Your task to perform on an android device: What's on my calendar today? Image 0: 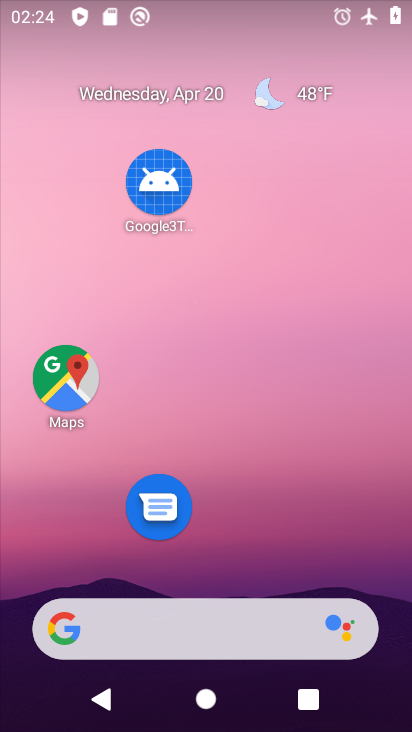
Step 0: drag from (223, 472) to (178, 11)
Your task to perform on an android device: What's on my calendar today? Image 1: 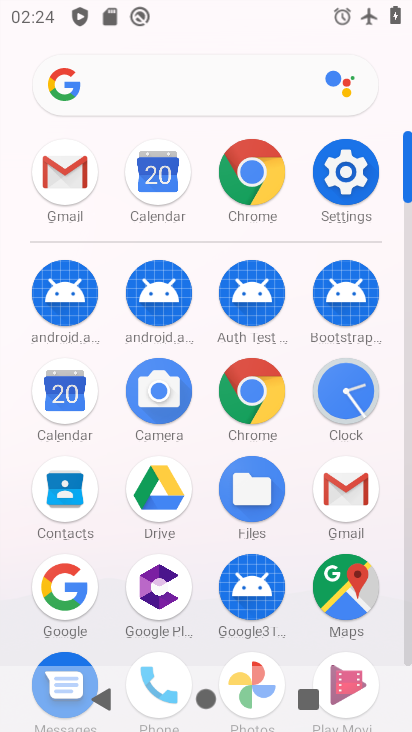
Step 1: click (58, 406)
Your task to perform on an android device: What's on my calendar today? Image 2: 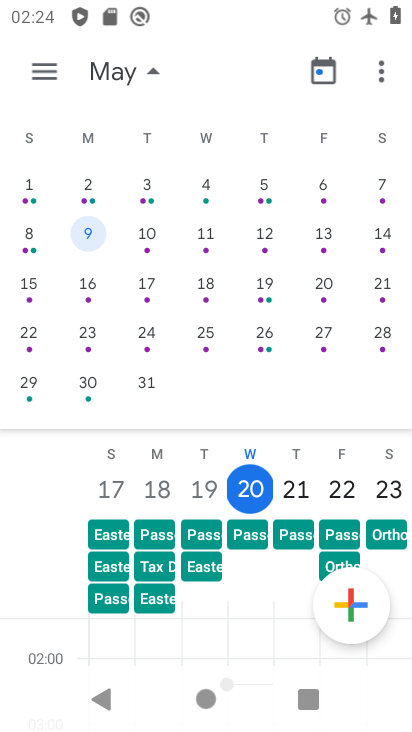
Step 2: click (37, 69)
Your task to perform on an android device: What's on my calendar today? Image 3: 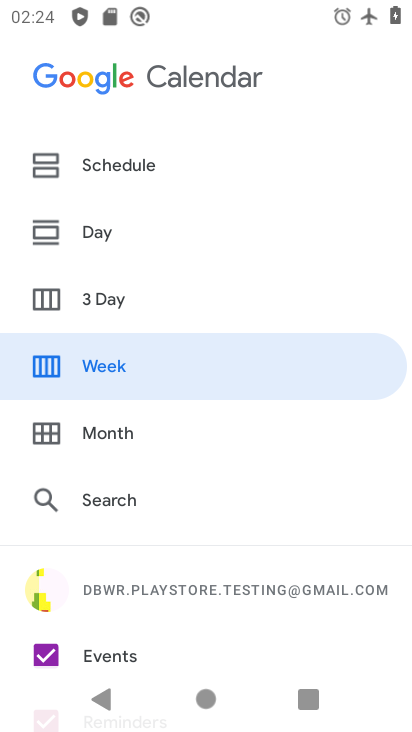
Step 3: click (89, 231)
Your task to perform on an android device: What's on my calendar today? Image 4: 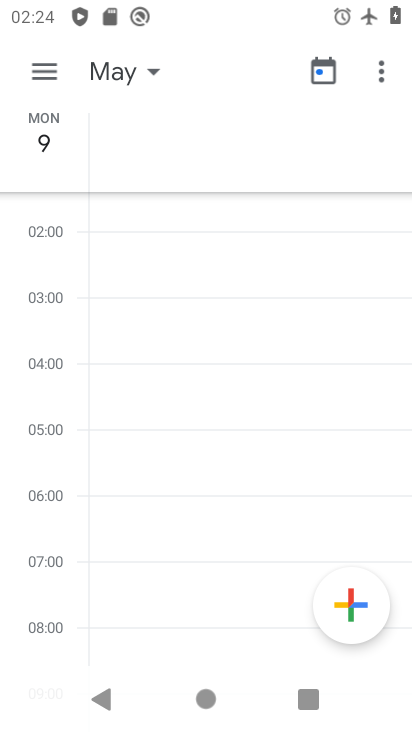
Step 4: click (152, 70)
Your task to perform on an android device: What's on my calendar today? Image 5: 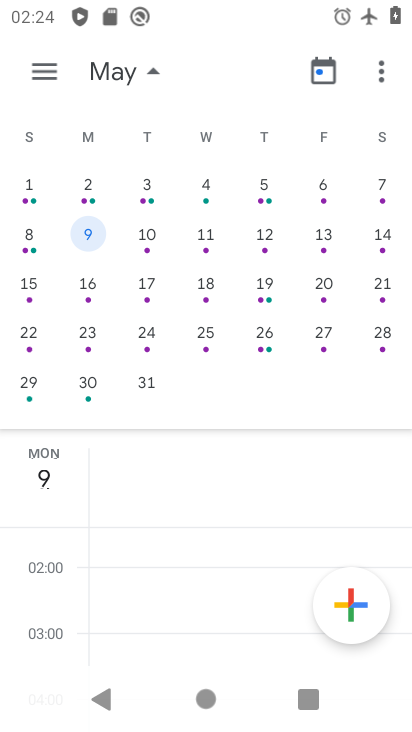
Step 5: drag from (30, 266) to (406, 279)
Your task to perform on an android device: What's on my calendar today? Image 6: 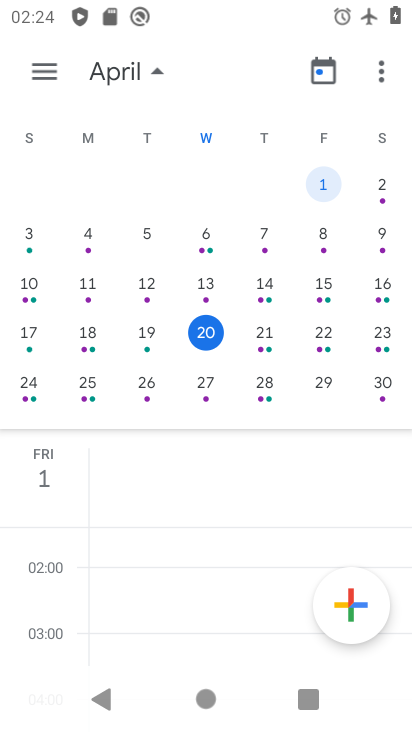
Step 6: click (201, 333)
Your task to perform on an android device: What's on my calendar today? Image 7: 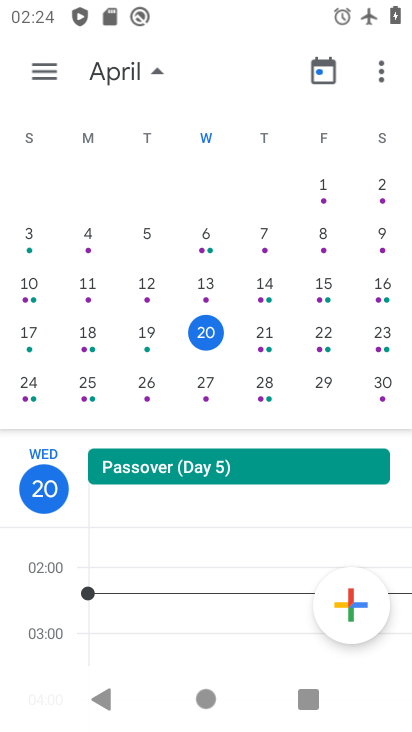
Step 7: task complete